Your task to perform on an android device: open app "Chime – Mobile Banking" (install if not already installed) Image 0: 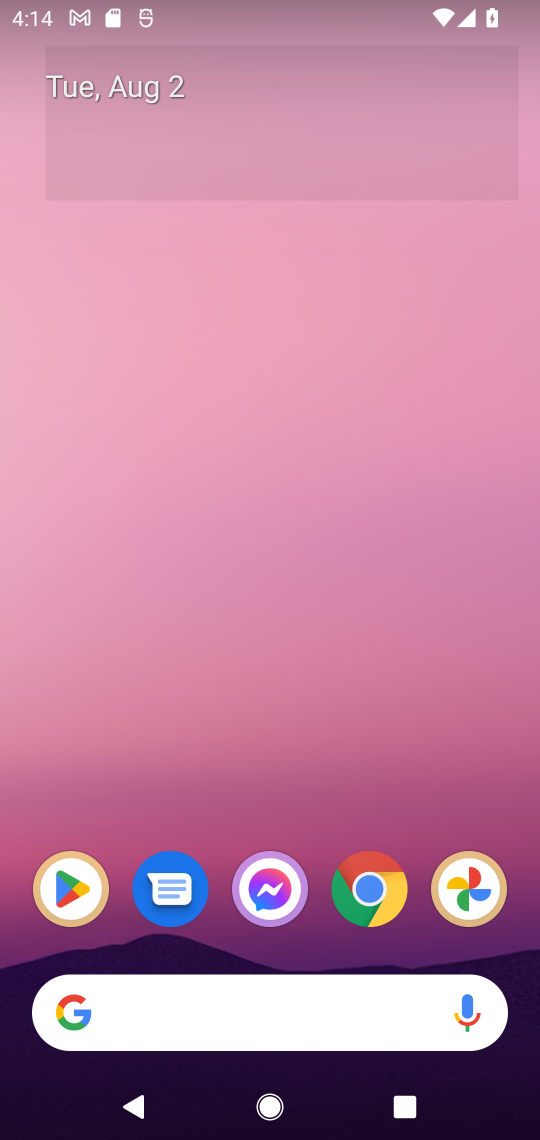
Step 0: press home button
Your task to perform on an android device: open app "Chime – Mobile Banking" (install if not already installed) Image 1: 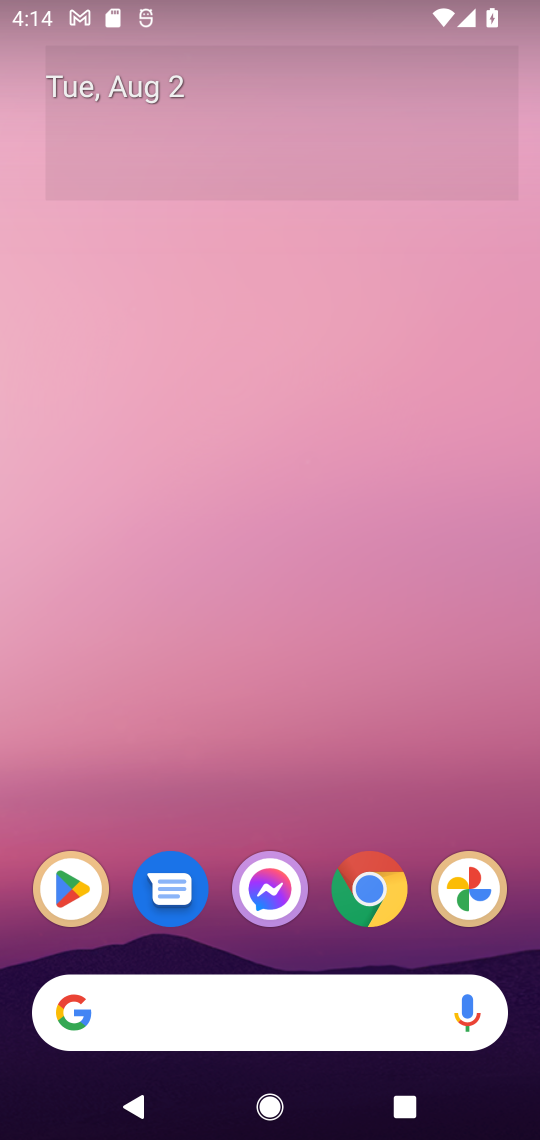
Step 1: drag from (430, 795) to (442, 113)
Your task to perform on an android device: open app "Chime – Mobile Banking" (install if not already installed) Image 2: 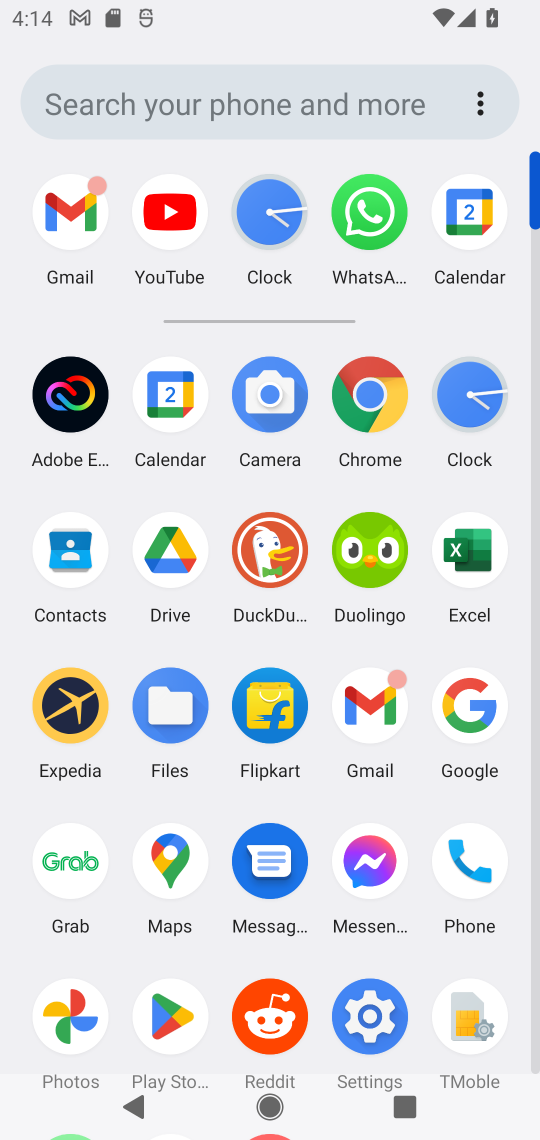
Step 2: click (168, 1019)
Your task to perform on an android device: open app "Chime – Mobile Banking" (install if not already installed) Image 3: 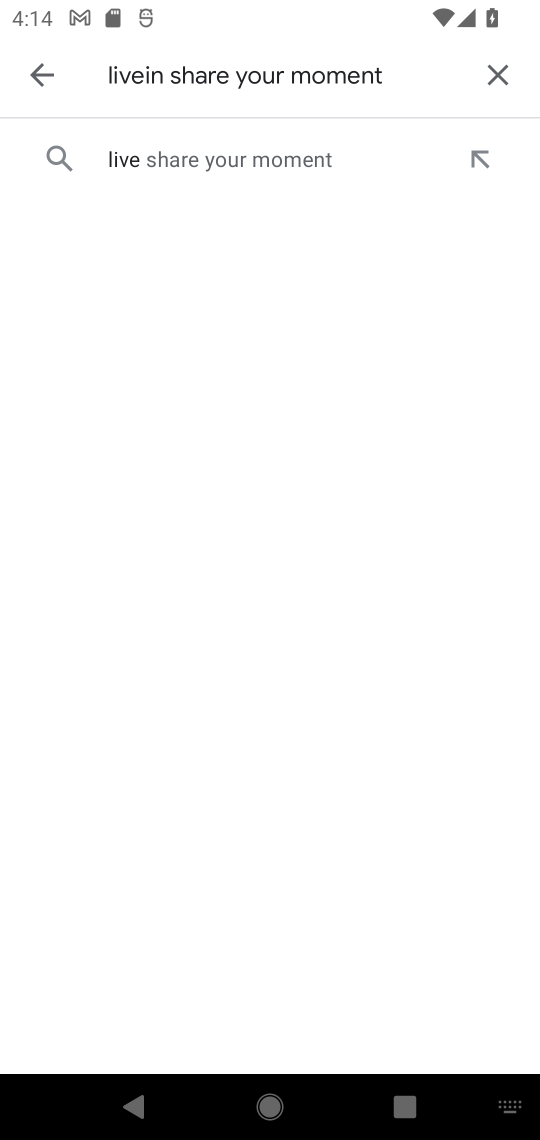
Step 3: click (504, 78)
Your task to perform on an android device: open app "Chime – Mobile Banking" (install if not already installed) Image 4: 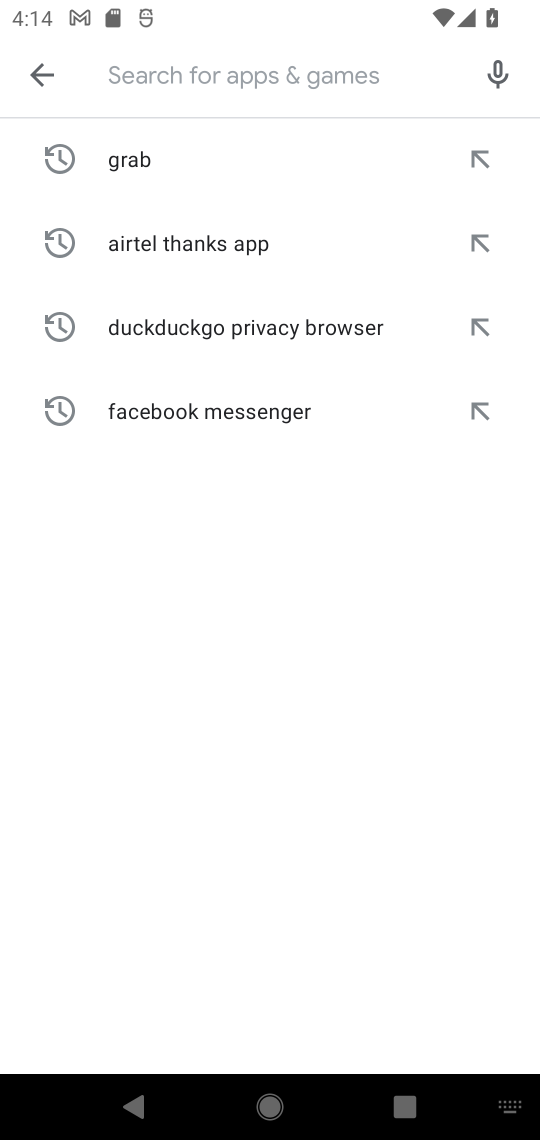
Step 4: type "chime mobile banking"
Your task to perform on an android device: open app "Chime – Mobile Banking" (install if not already installed) Image 5: 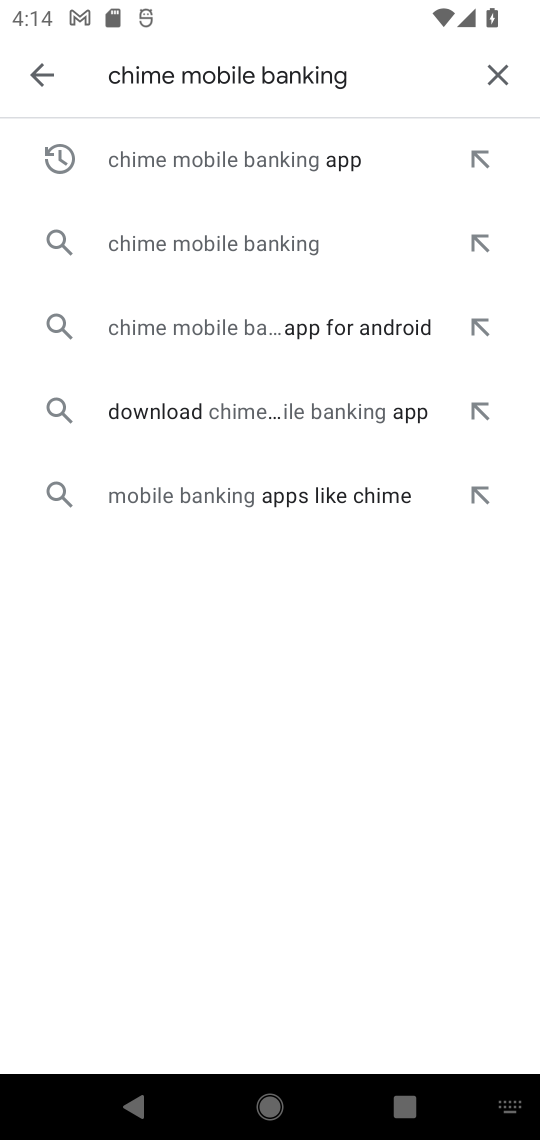
Step 5: click (296, 163)
Your task to perform on an android device: open app "Chime – Mobile Banking" (install if not already installed) Image 6: 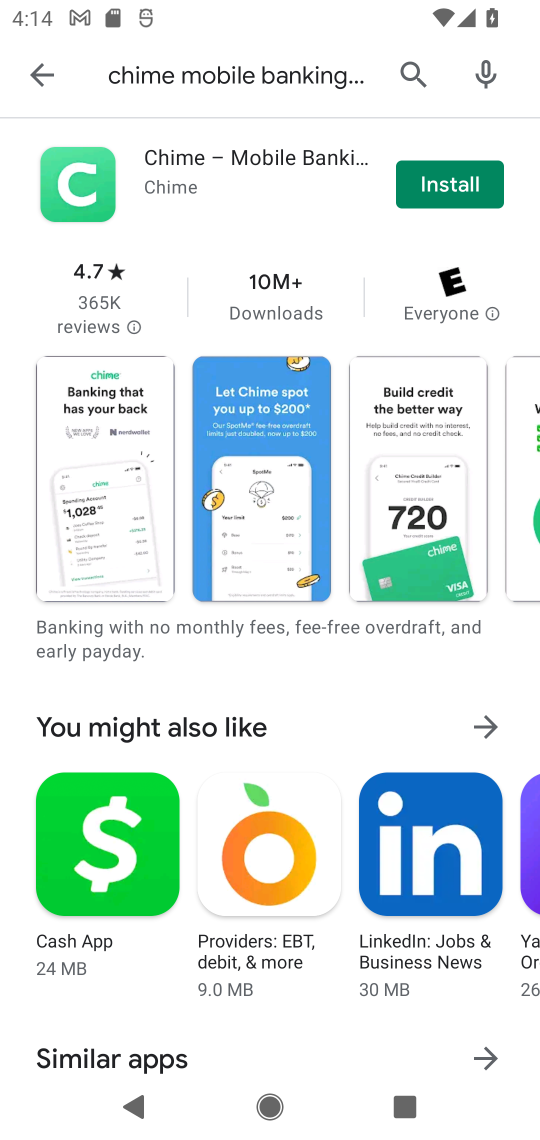
Step 6: click (447, 190)
Your task to perform on an android device: open app "Chime – Mobile Banking" (install if not already installed) Image 7: 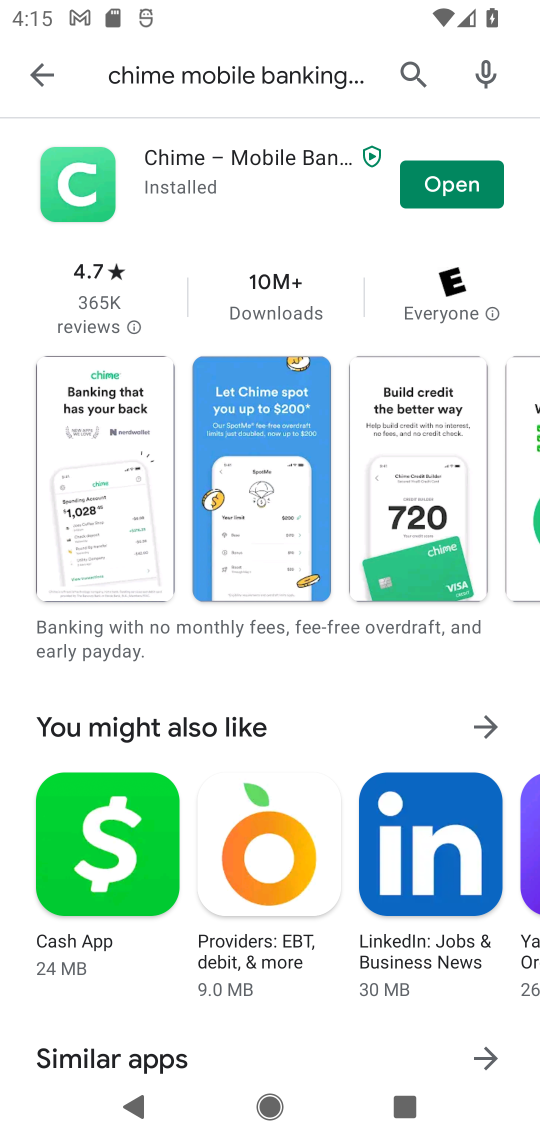
Step 7: click (466, 184)
Your task to perform on an android device: open app "Chime – Mobile Banking" (install if not already installed) Image 8: 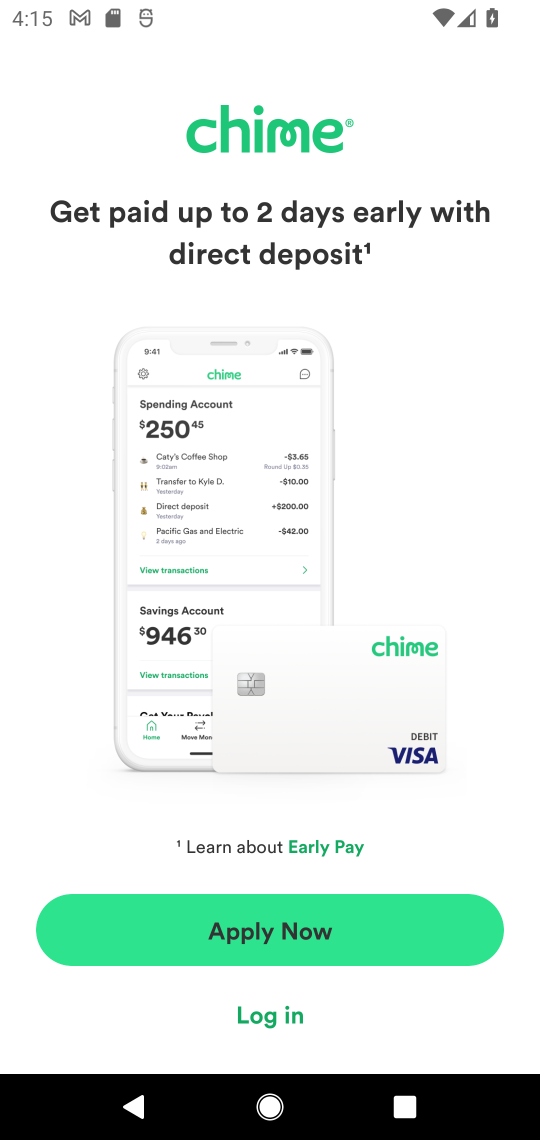
Step 8: task complete